Your task to perform on an android device: Go to display settings Image 0: 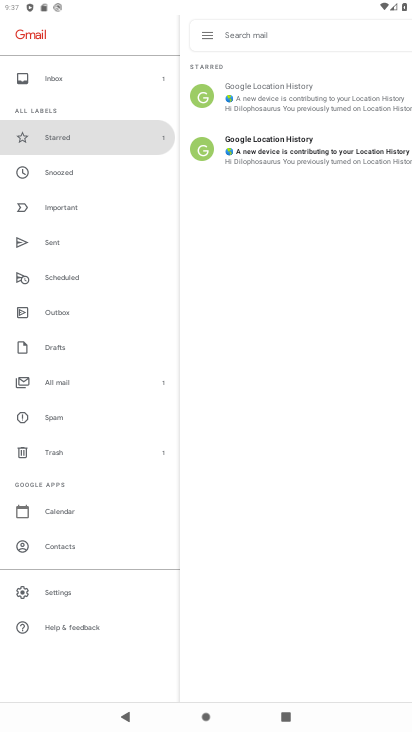
Step 0: press home button
Your task to perform on an android device: Go to display settings Image 1: 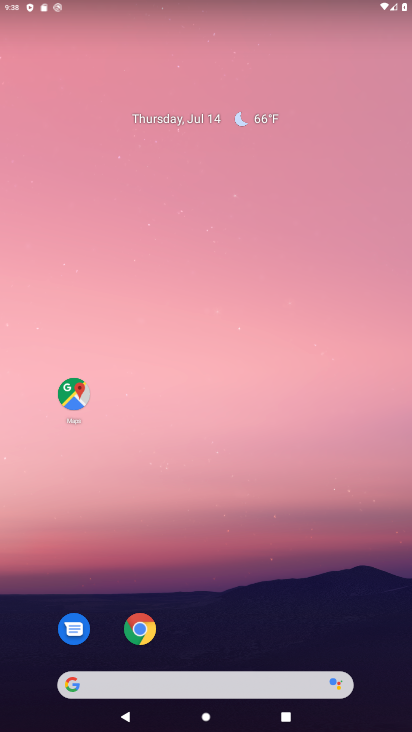
Step 1: drag from (285, 643) to (289, 43)
Your task to perform on an android device: Go to display settings Image 2: 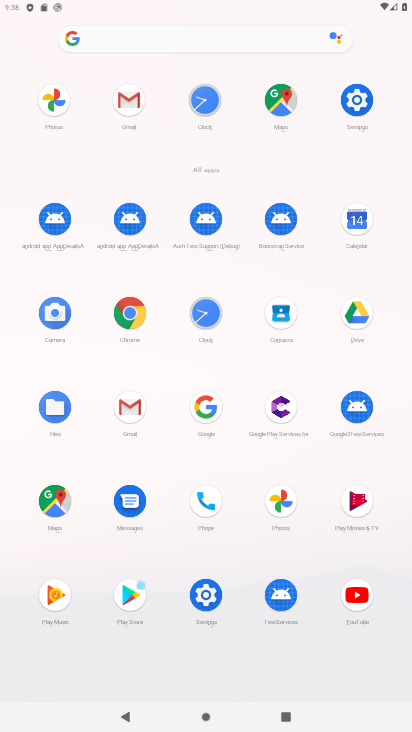
Step 2: click (366, 101)
Your task to perform on an android device: Go to display settings Image 3: 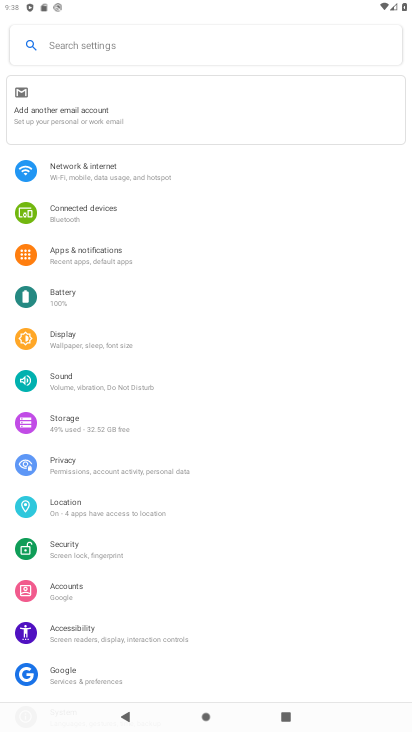
Step 3: click (81, 333)
Your task to perform on an android device: Go to display settings Image 4: 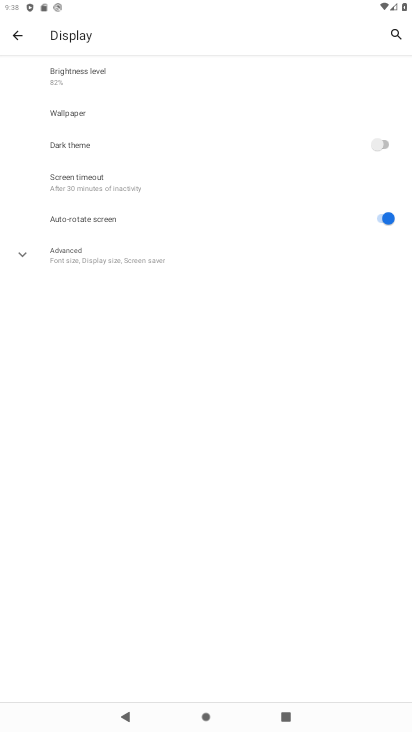
Step 4: task complete